Your task to perform on an android device: delete browsing data in the chrome app Image 0: 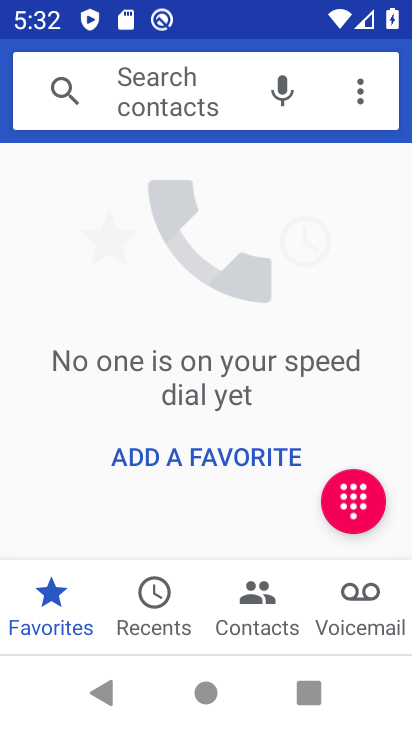
Step 0: press home button
Your task to perform on an android device: delete browsing data in the chrome app Image 1: 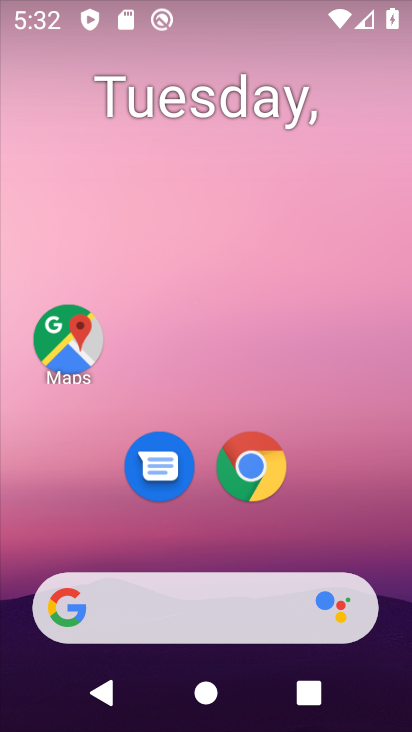
Step 1: click (279, 488)
Your task to perform on an android device: delete browsing data in the chrome app Image 2: 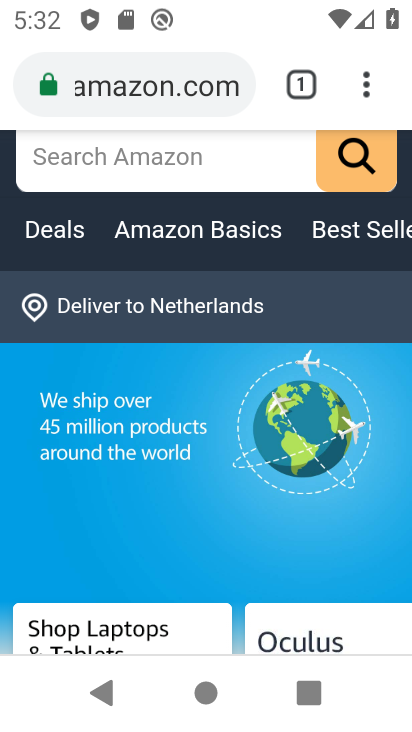
Step 2: drag from (372, 53) to (91, 534)
Your task to perform on an android device: delete browsing data in the chrome app Image 3: 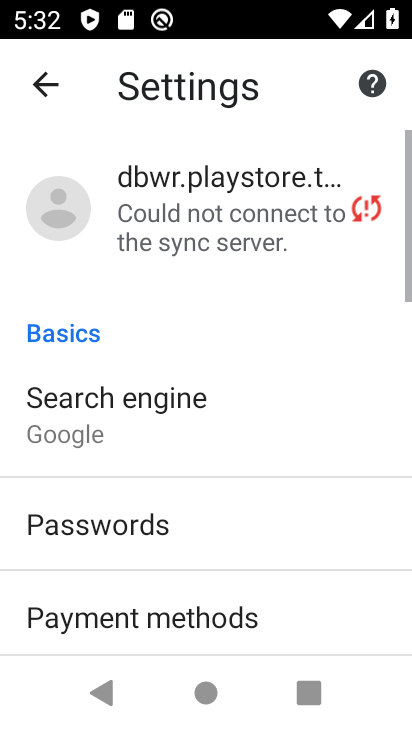
Step 3: drag from (91, 534) to (410, 442)
Your task to perform on an android device: delete browsing data in the chrome app Image 4: 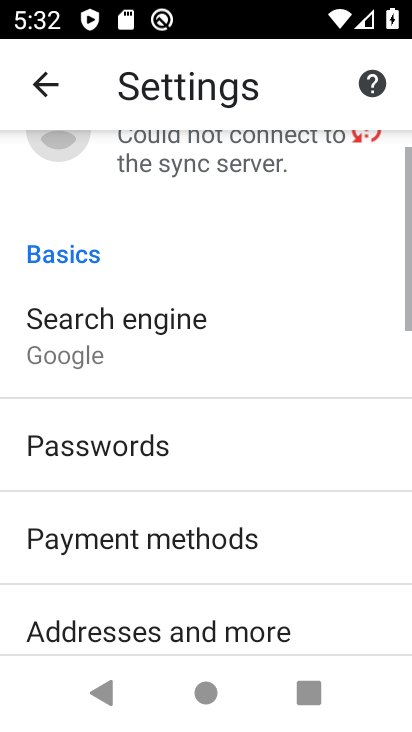
Step 4: drag from (247, 551) to (222, 163)
Your task to perform on an android device: delete browsing data in the chrome app Image 5: 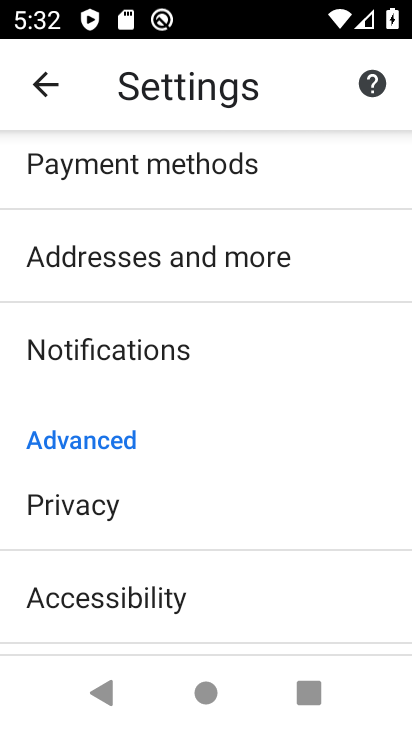
Step 5: click (189, 503)
Your task to perform on an android device: delete browsing data in the chrome app Image 6: 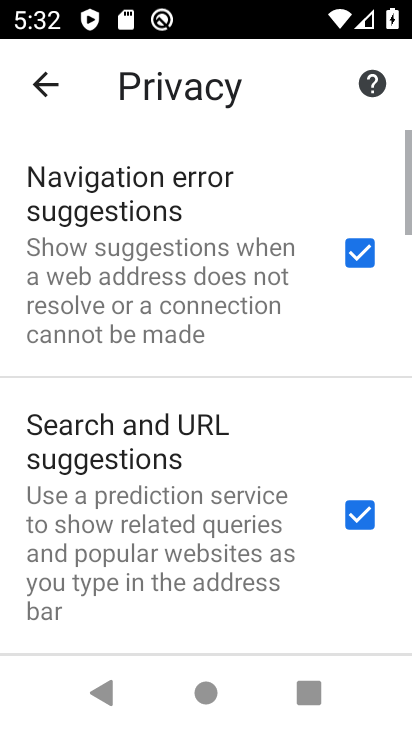
Step 6: drag from (195, 500) to (214, 9)
Your task to perform on an android device: delete browsing data in the chrome app Image 7: 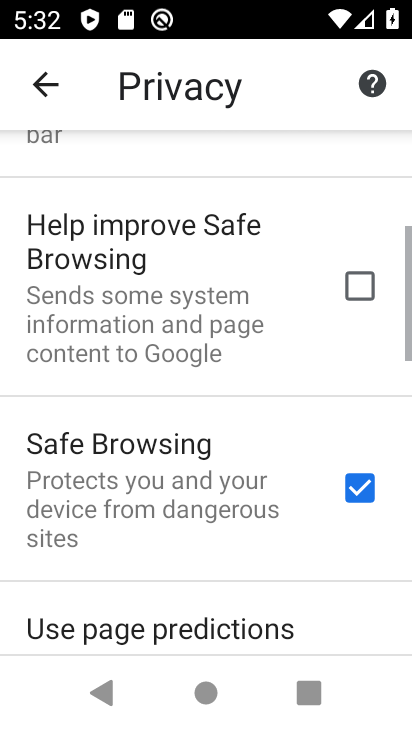
Step 7: drag from (217, 393) to (210, 102)
Your task to perform on an android device: delete browsing data in the chrome app Image 8: 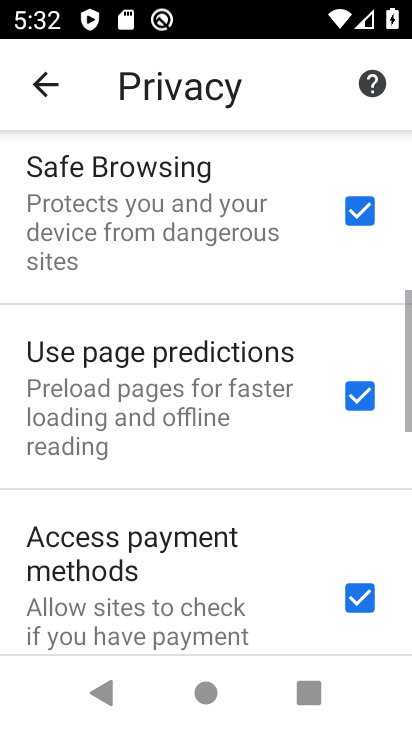
Step 8: drag from (218, 491) to (217, 255)
Your task to perform on an android device: delete browsing data in the chrome app Image 9: 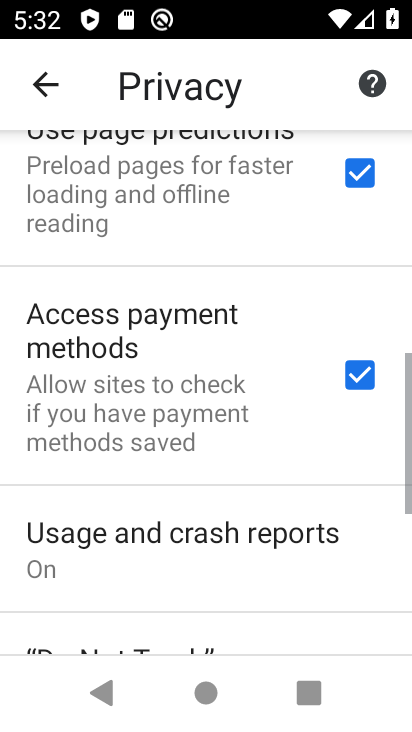
Step 9: drag from (215, 540) to (214, 203)
Your task to perform on an android device: delete browsing data in the chrome app Image 10: 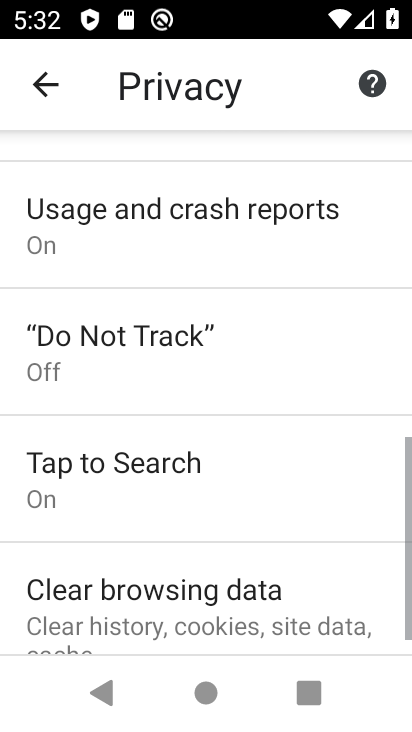
Step 10: drag from (216, 490) to (221, 186)
Your task to perform on an android device: delete browsing data in the chrome app Image 11: 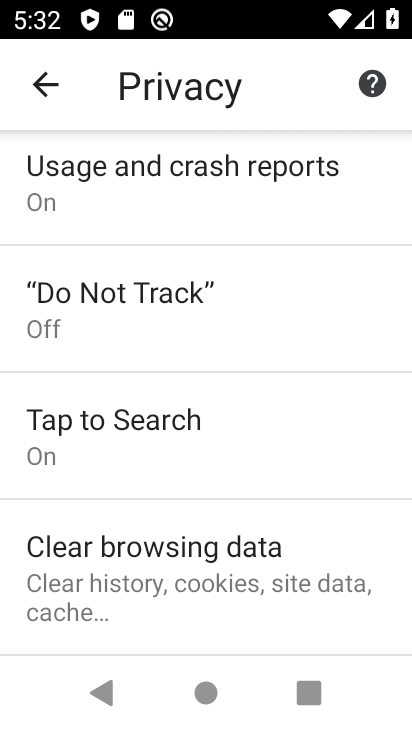
Step 11: click (221, 553)
Your task to perform on an android device: delete browsing data in the chrome app Image 12: 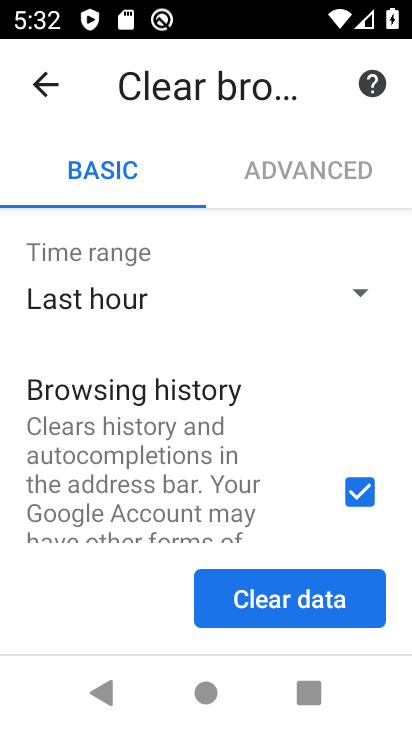
Step 12: click (258, 592)
Your task to perform on an android device: delete browsing data in the chrome app Image 13: 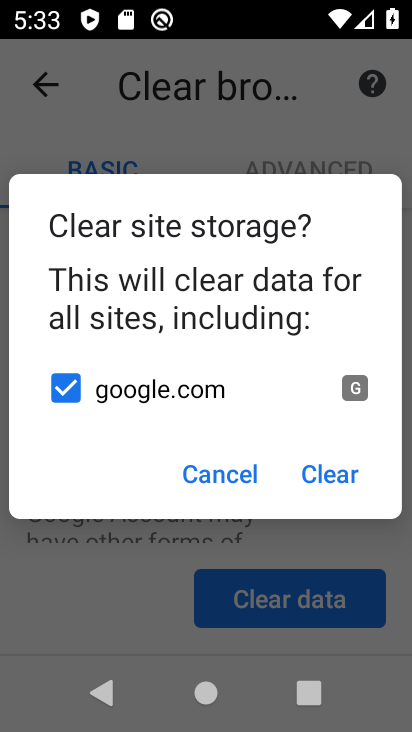
Step 13: click (317, 463)
Your task to perform on an android device: delete browsing data in the chrome app Image 14: 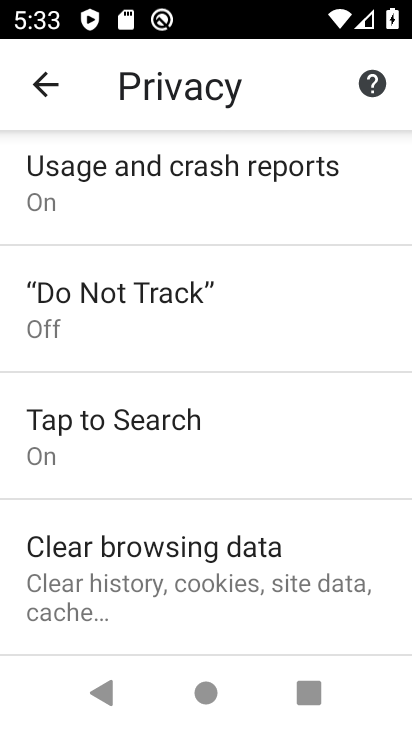
Step 14: task complete